Your task to perform on an android device: visit the assistant section in the google photos Image 0: 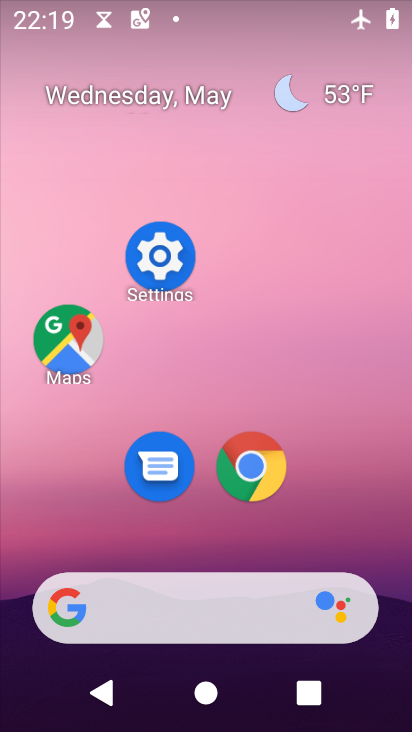
Step 0: drag from (205, 506) to (188, 101)
Your task to perform on an android device: visit the assistant section in the google photos Image 1: 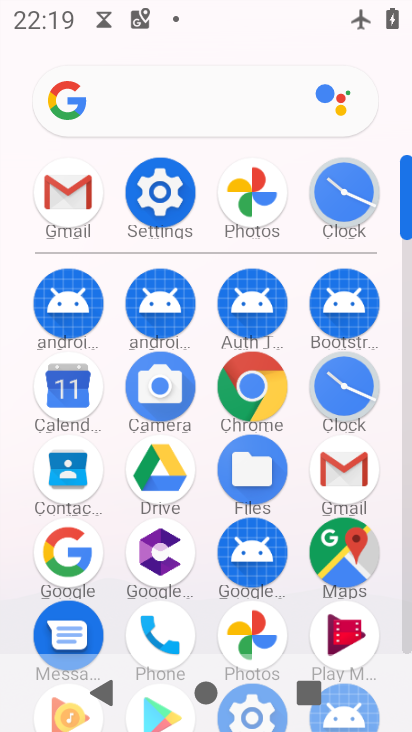
Step 1: click (248, 638)
Your task to perform on an android device: visit the assistant section in the google photos Image 2: 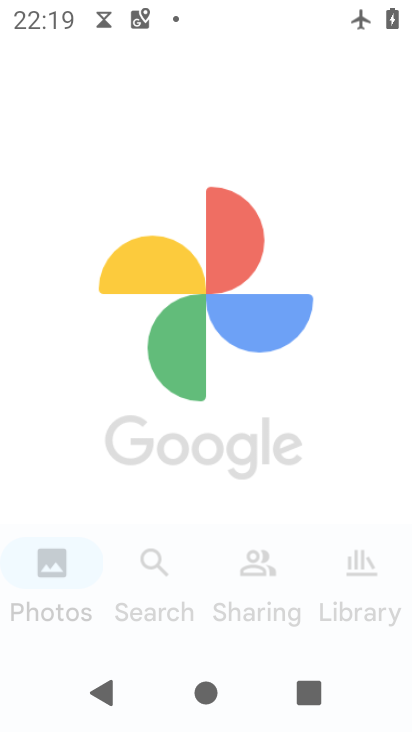
Step 2: drag from (257, 594) to (235, 241)
Your task to perform on an android device: visit the assistant section in the google photos Image 3: 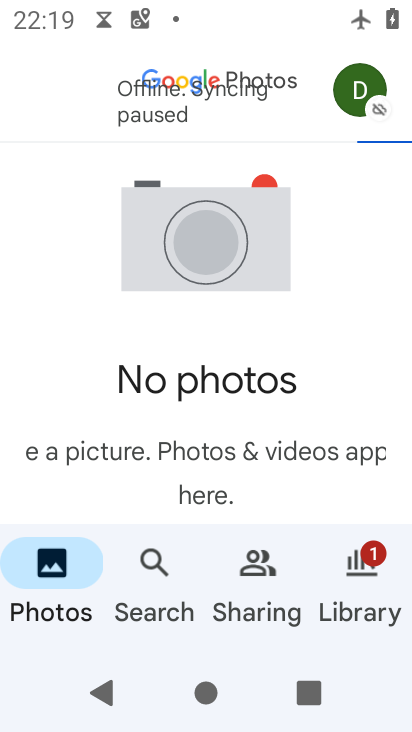
Step 3: click (344, 564)
Your task to perform on an android device: visit the assistant section in the google photos Image 4: 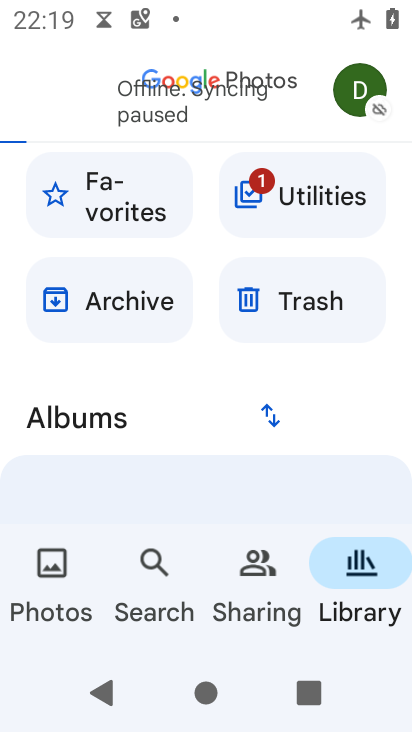
Step 4: task complete